Your task to perform on an android device: change timer sound Image 0: 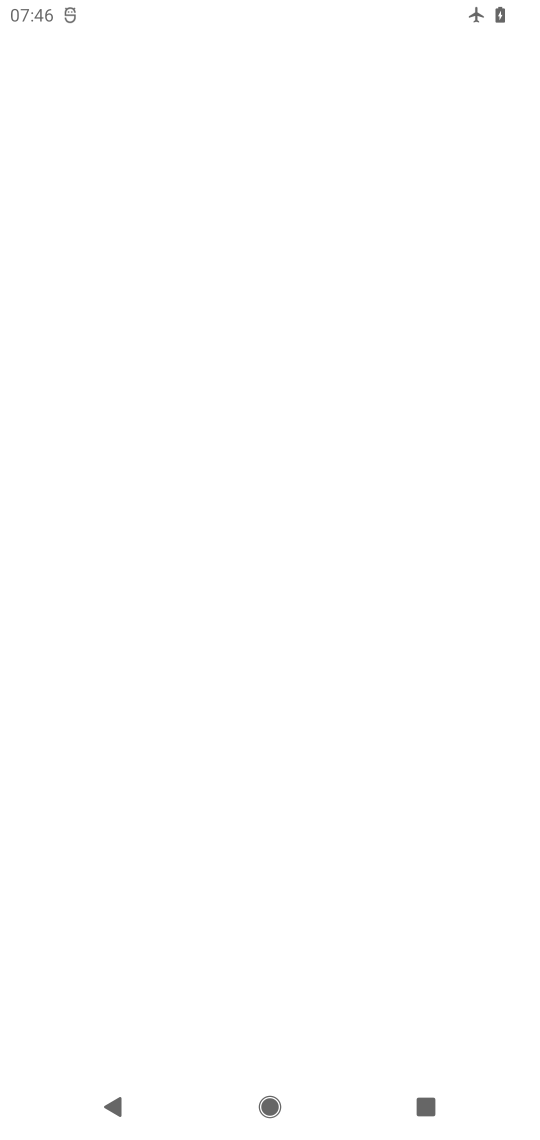
Step 0: press home button
Your task to perform on an android device: change timer sound Image 1: 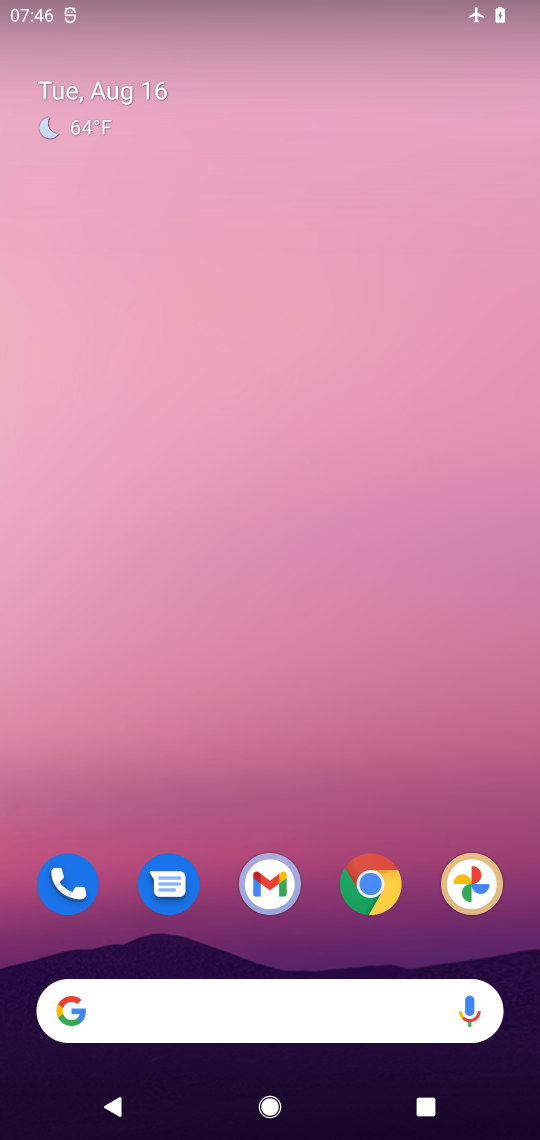
Step 1: drag from (387, 794) to (498, 12)
Your task to perform on an android device: change timer sound Image 2: 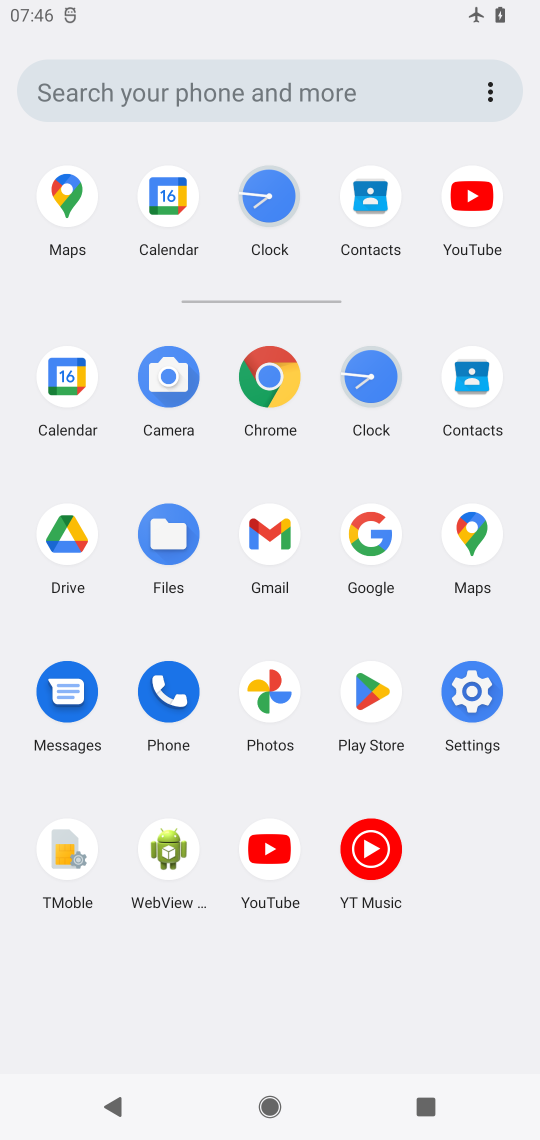
Step 2: click (368, 379)
Your task to perform on an android device: change timer sound Image 3: 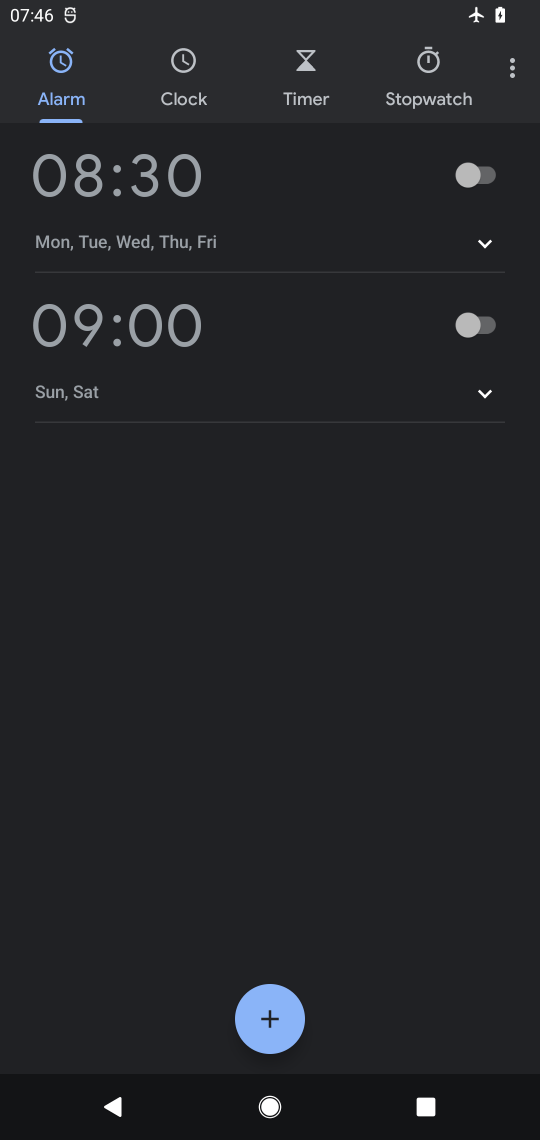
Step 3: click (521, 70)
Your task to perform on an android device: change timer sound Image 4: 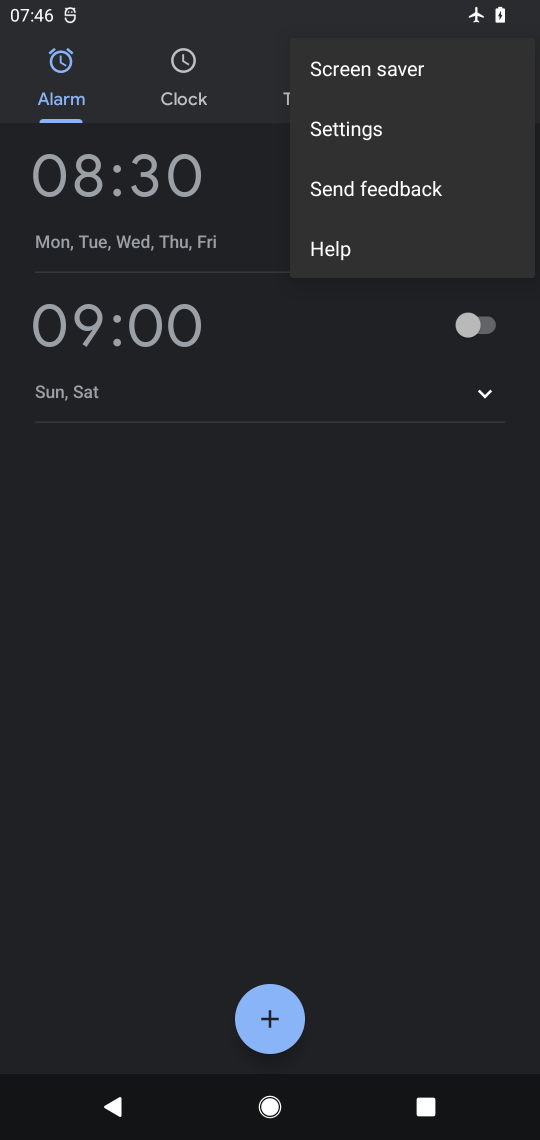
Step 4: click (352, 131)
Your task to perform on an android device: change timer sound Image 5: 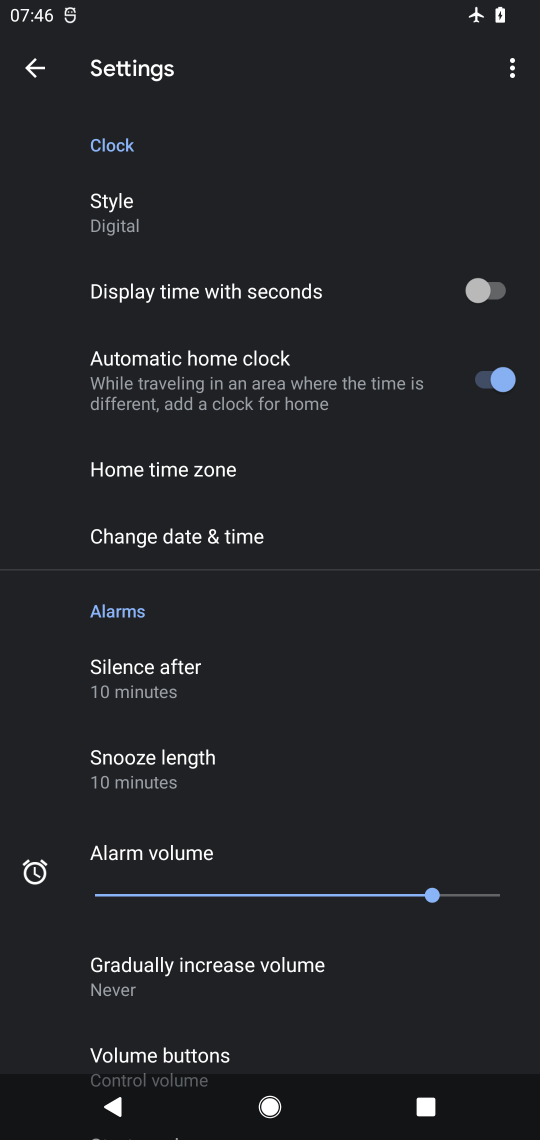
Step 5: drag from (273, 608) to (212, 130)
Your task to perform on an android device: change timer sound Image 6: 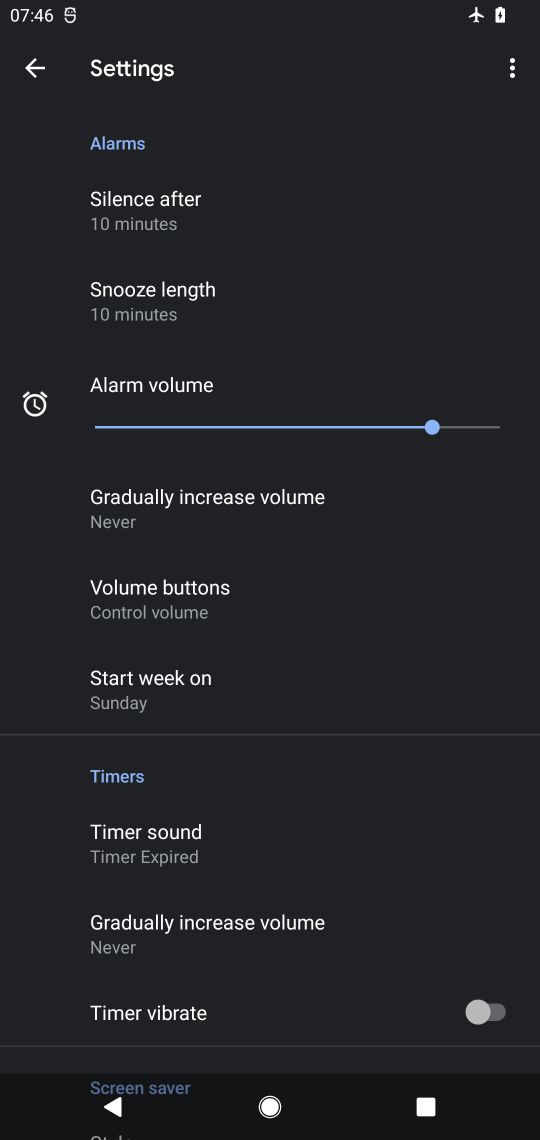
Step 6: click (238, 836)
Your task to perform on an android device: change timer sound Image 7: 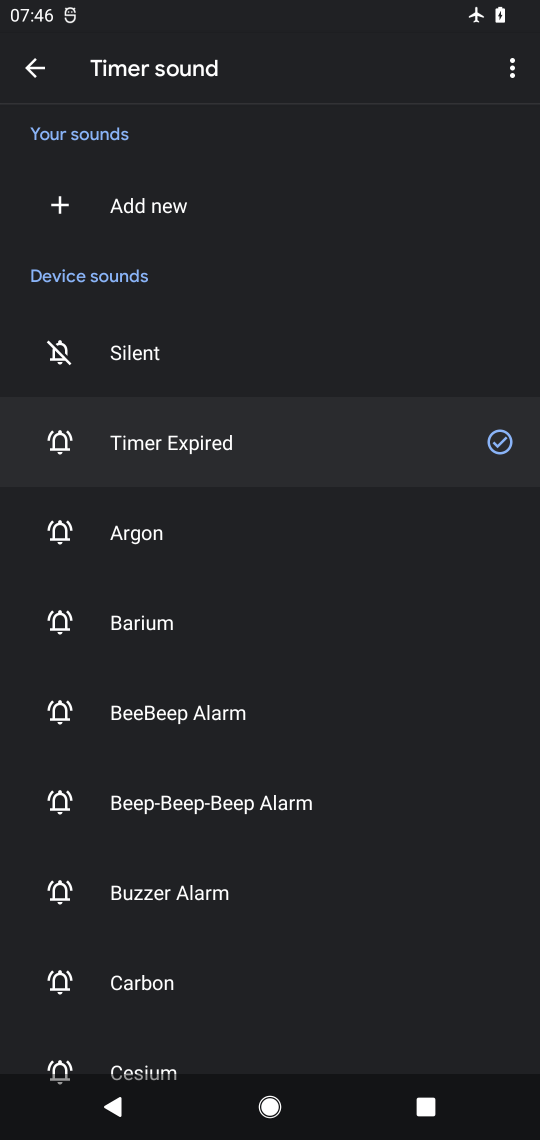
Step 7: click (237, 546)
Your task to perform on an android device: change timer sound Image 8: 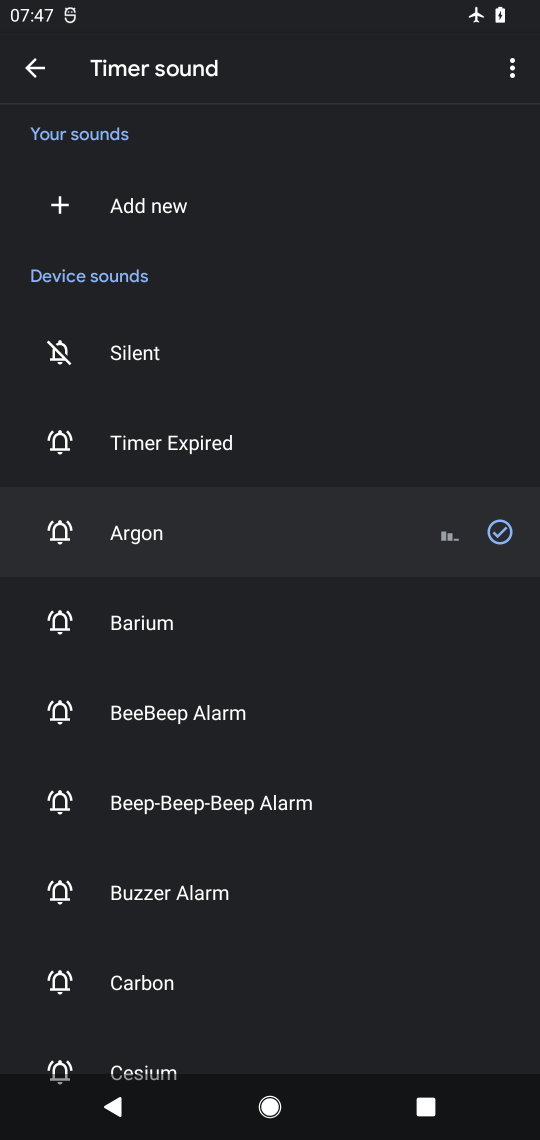
Step 8: task complete